Your task to perform on an android device: Go to CNN.com Image 0: 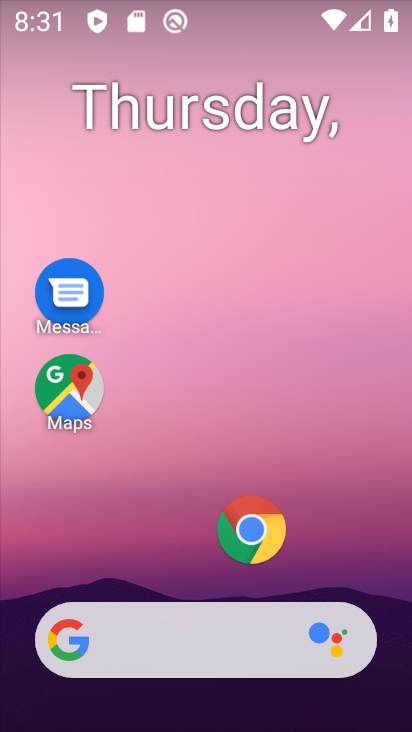
Step 0: click (289, 88)
Your task to perform on an android device: Go to CNN.com Image 1: 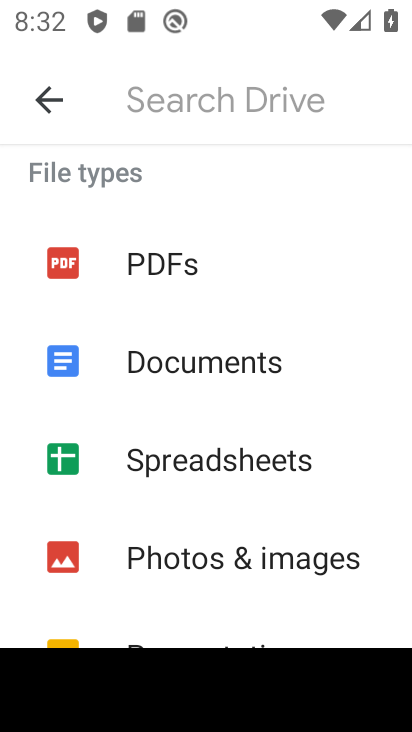
Step 1: press home button
Your task to perform on an android device: Go to CNN.com Image 2: 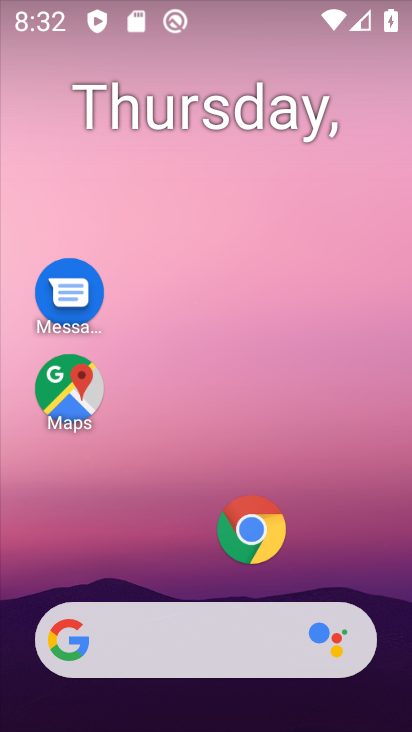
Step 2: click (221, 639)
Your task to perform on an android device: Go to CNN.com Image 3: 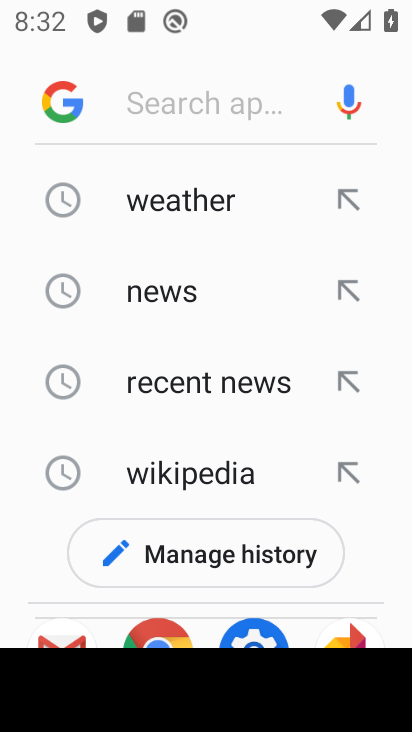
Step 3: type "cnn.com"
Your task to perform on an android device: Go to CNN.com Image 4: 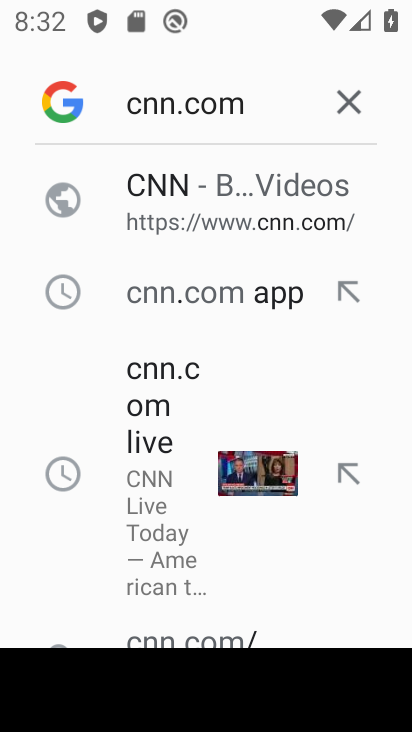
Step 4: click (199, 206)
Your task to perform on an android device: Go to CNN.com Image 5: 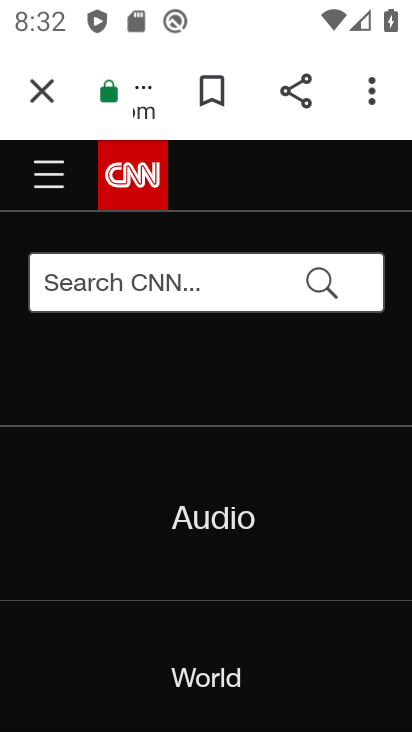
Step 5: task complete